Your task to perform on an android device: Open internet settings Image 0: 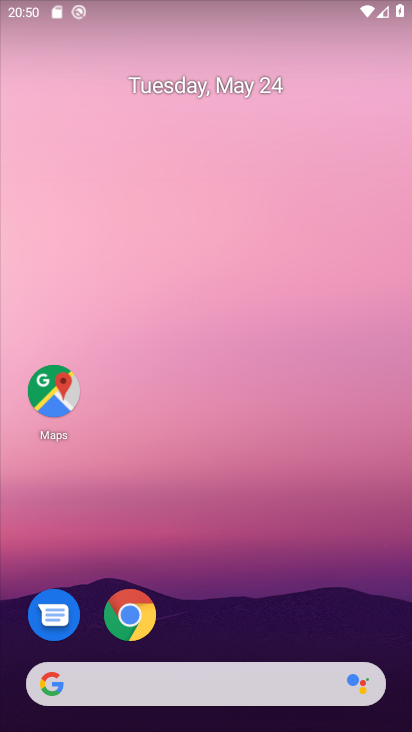
Step 0: drag from (268, 644) to (298, 315)
Your task to perform on an android device: Open internet settings Image 1: 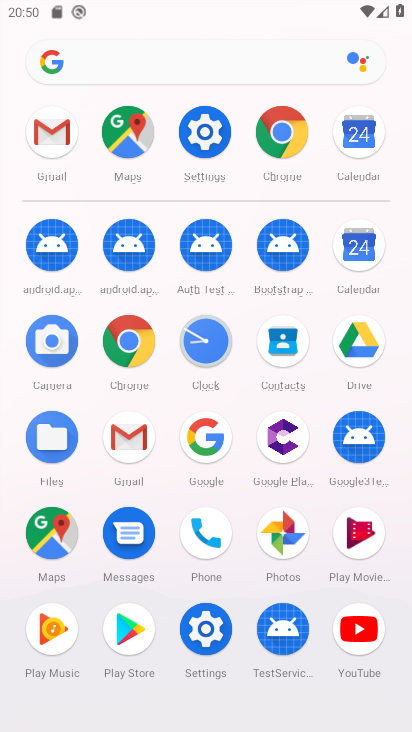
Step 1: click (201, 137)
Your task to perform on an android device: Open internet settings Image 2: 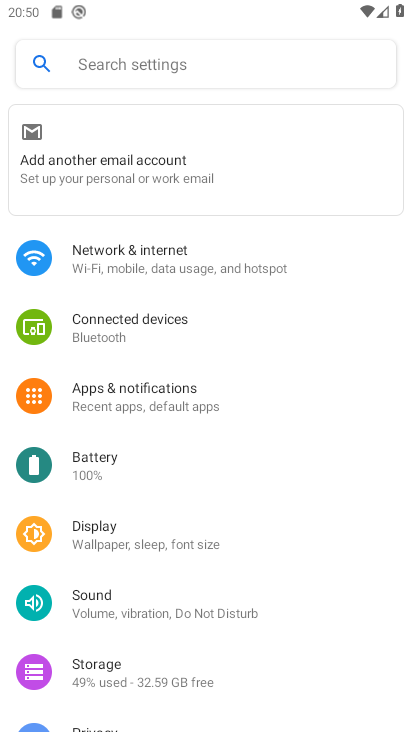
Step 2: click (210, 263)
Your task to perform on an android device: Open internet settings Image 3: 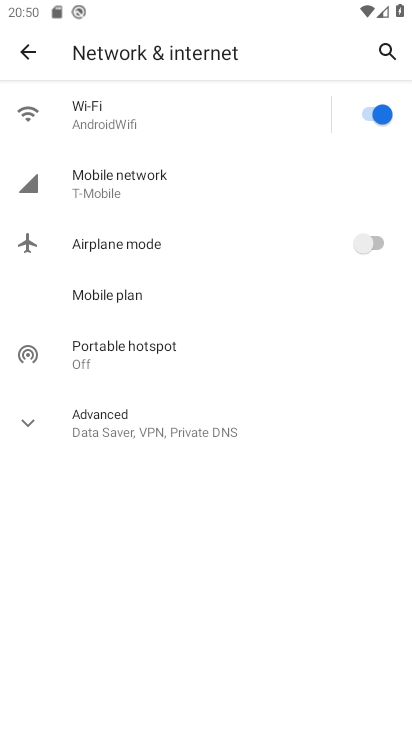
Step 3: click (157, 184)
Your task to perform on an android device: Open internet settings Image 4: 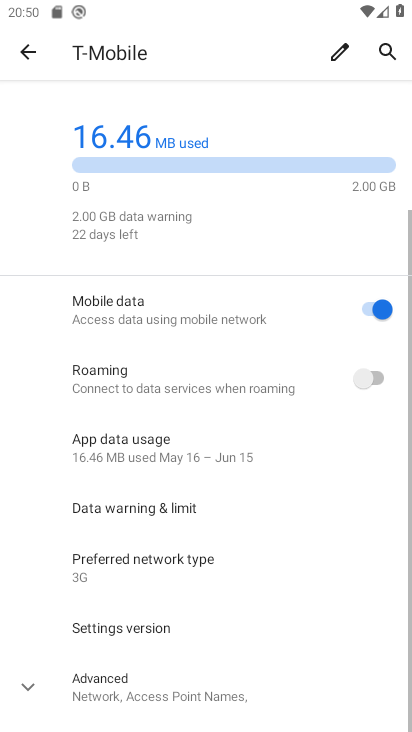
Step 4: click (7, 57)
Your task to perform on an android device: Open internet settings Image 5: 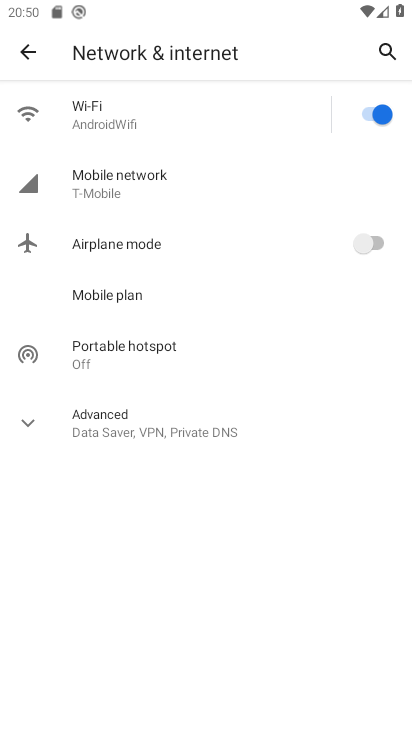
Step 5: task complete